Your task to perform on an android device: turn on sleep mode Image 0: 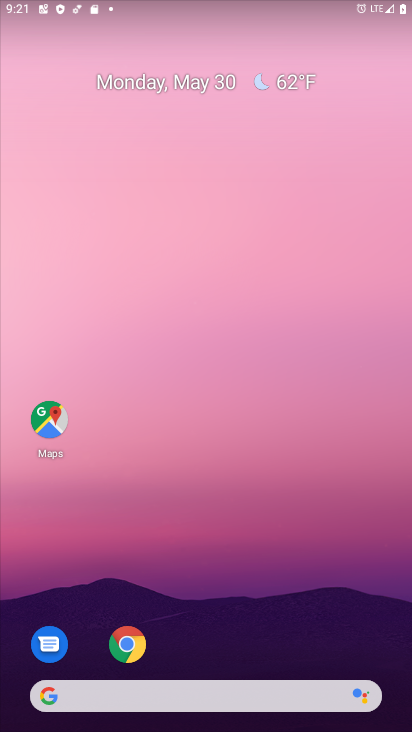
Step 0: drag from (406, 653) to (330, 117)
Your task to perform on an android device: turn on sleep mode Image 1: 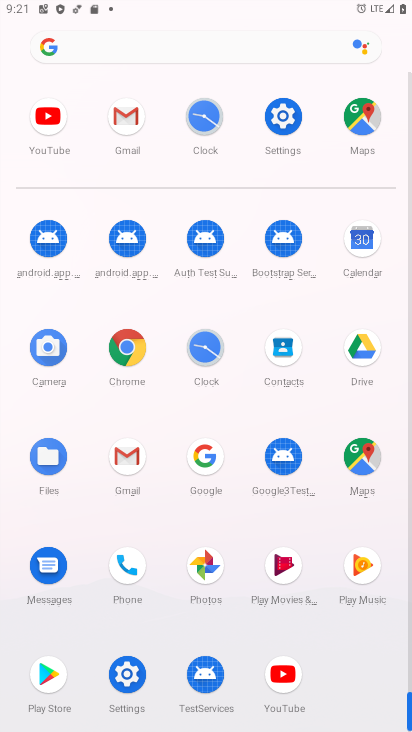
Step 1: click (125, 675)
Your task to perform on an android device: turn on sleep mode Image 2: 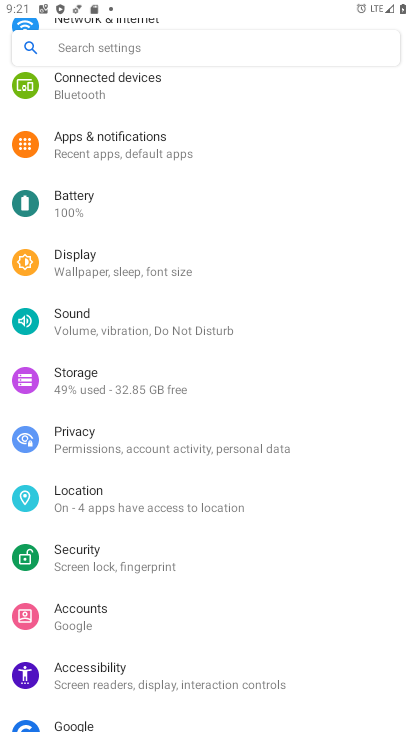
Step 2: click (80, 195)
Your task to perform on an android device: turn on sleep mode Image 3: 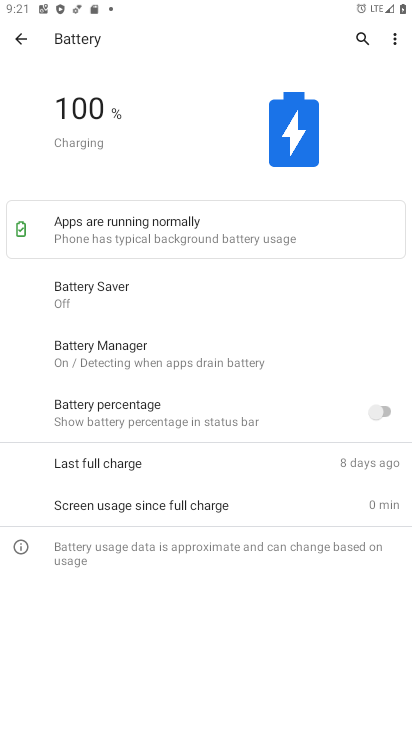
Step 3: press back button
Your task to perform on an android device: turn on sleep mode Image 4: 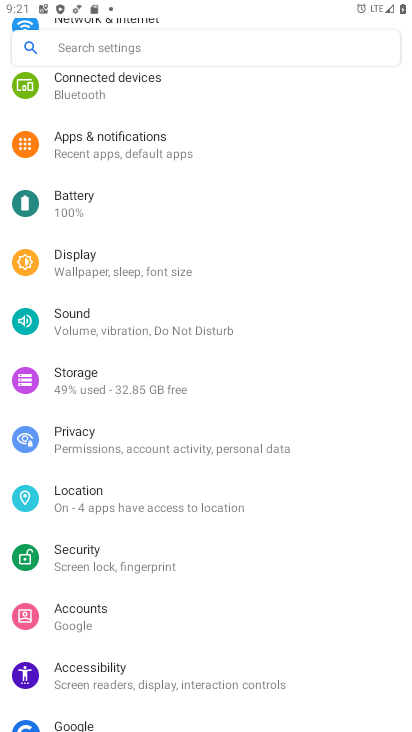
Step 4: click (75, 258)
Your task to perform on an android device: turn on sleep mode Image 5: 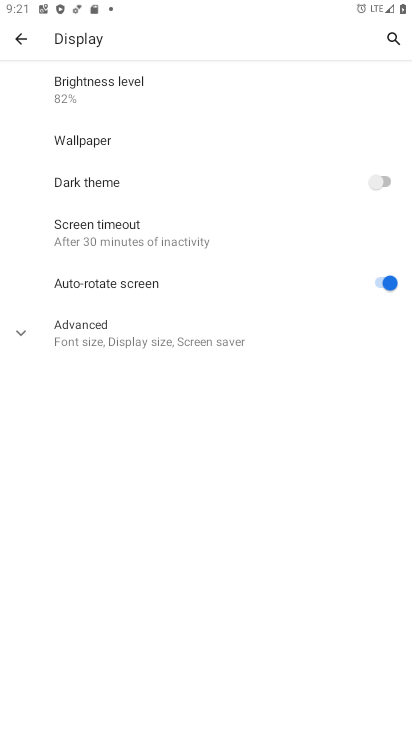
Step 5: click (19, 329)
Your task to perform on an android device: turn on sleep mode Image 6: 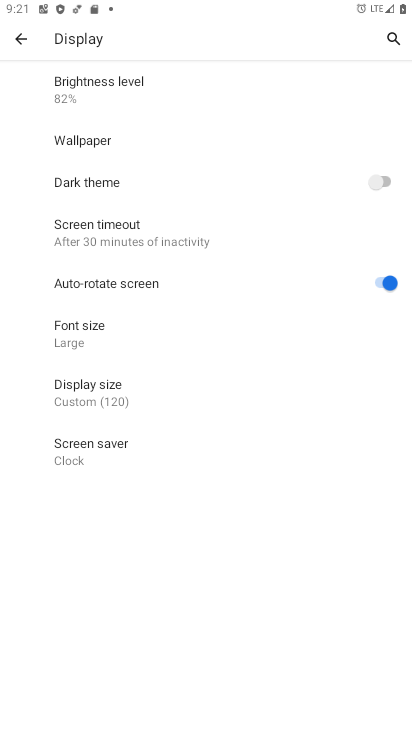
Step 6: task complete